Your task to perform on an android device: Open Google Maps and go to "Timeline" Image 0: 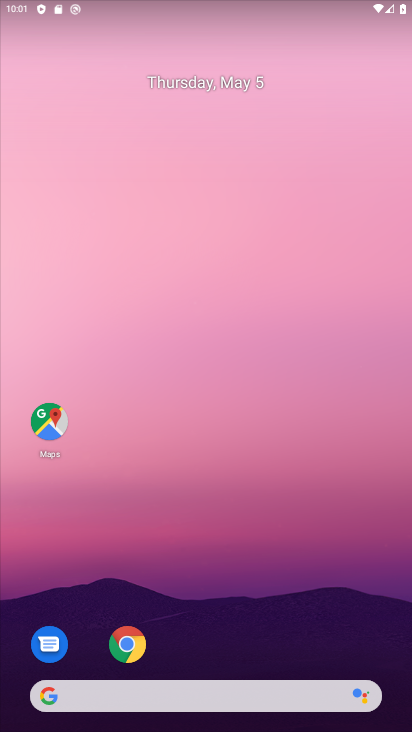
Step 0: click (49, 414)
Your task to perform on an android device: Open Google Maps and go to "Timeline" Image 1: 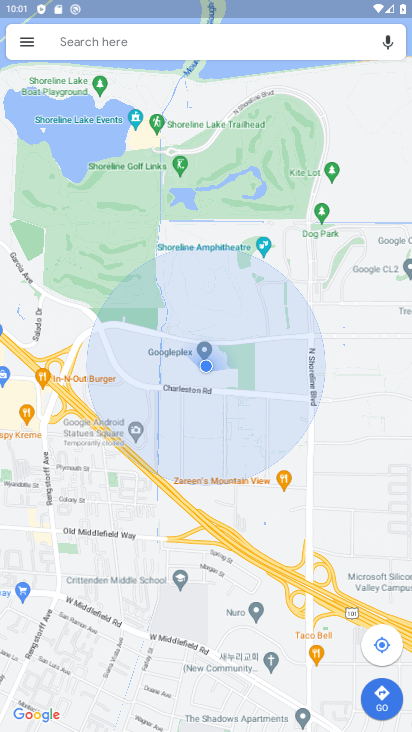
Step 1: click (22, 43)
Your task to perform on an android device: Open Google Maps and go to "Timeline" Image 2: 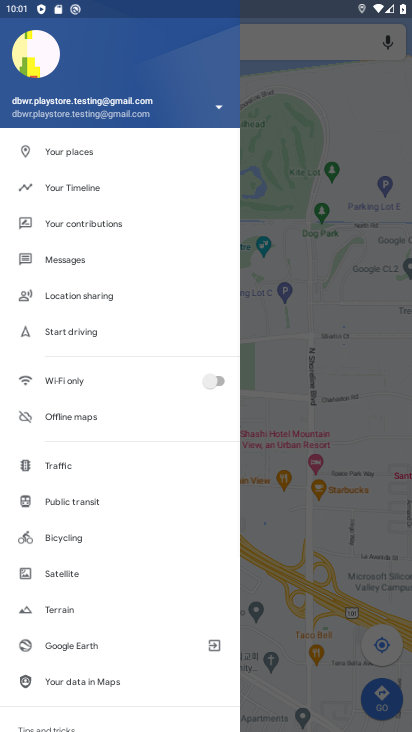
Step 2: click (57, 185)
Your task to perform on an android device: Open Google Maps and go to "Timeline" Image 3: 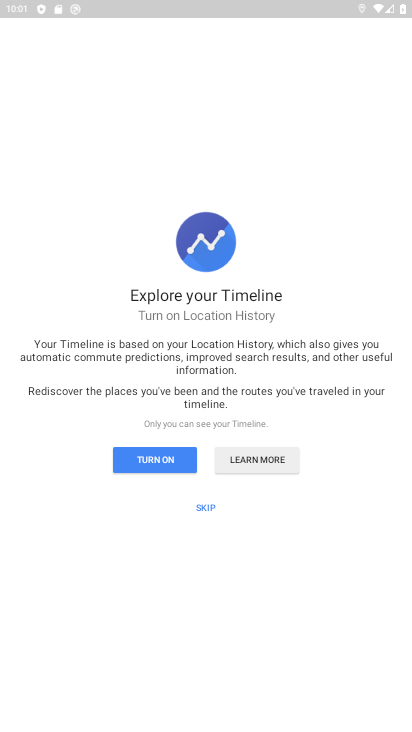
Step 3: click (208, 501)
Your task to perform on an android device: Open Google Maps and go to "Timeline" Image 4: 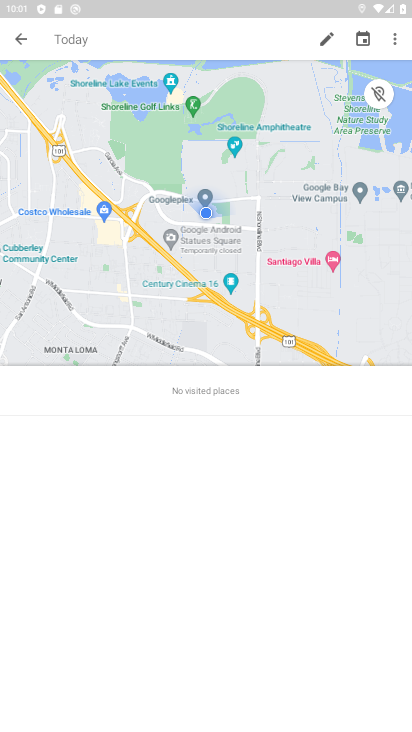
Step 4: task complete